Your task to perform on an android device: toggle location history Image 0: 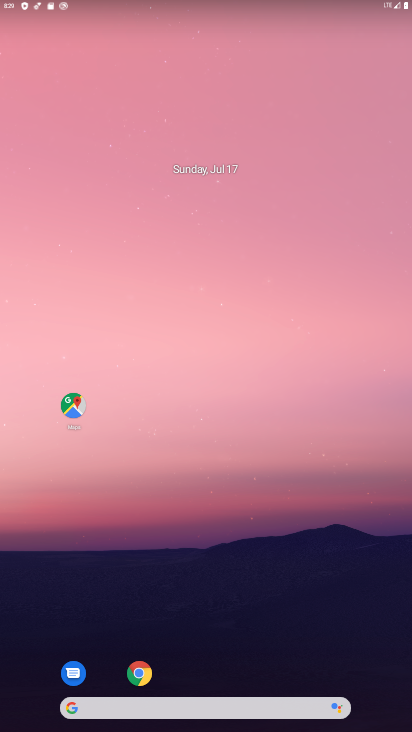
Step 0: drag from (309, 653) to (275, 57)
Your task to perform on an android device: toggle location history Image 1: 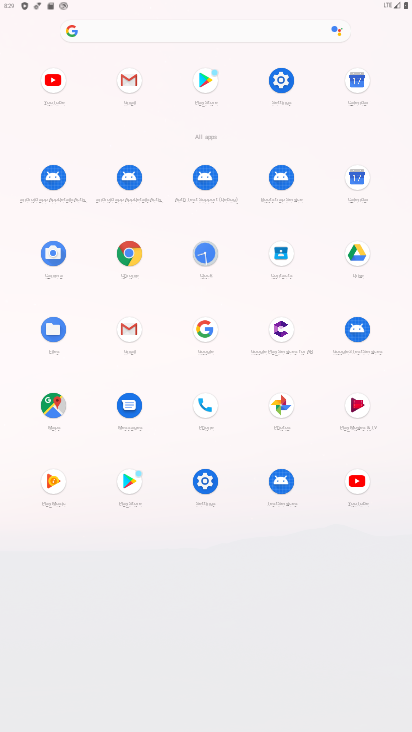
Step 1: click (202, 486)
Your task to perform on an android device: toggle location history Image 2: 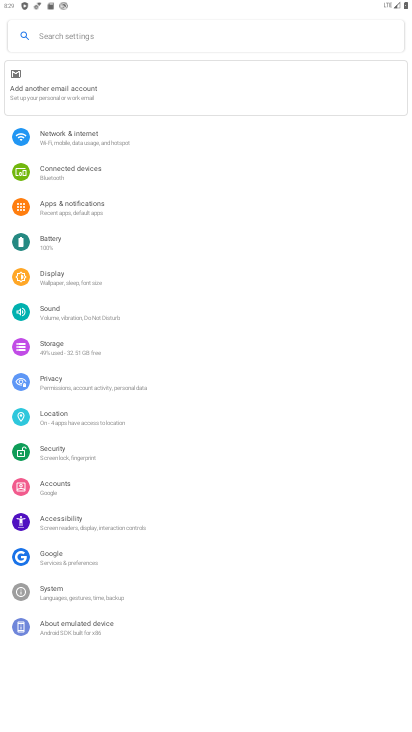
Step 2: click (78, 423)
Your task to perform on an android device: toggle location history Image 3: 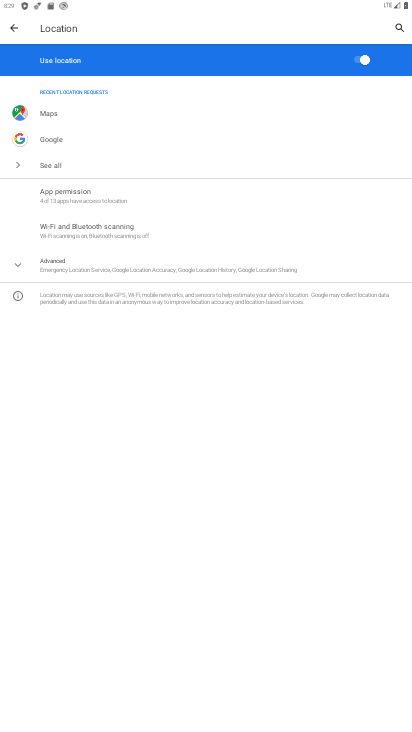
Step 3: click (15, 268)
Your task to perform on an android device: toggle location history Image 4: 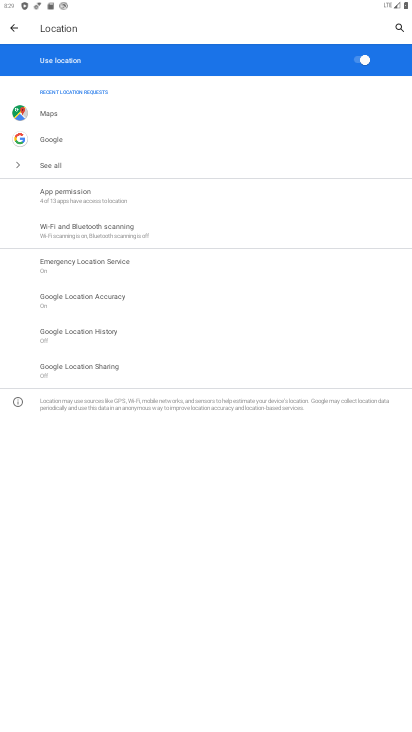
Step 4: click (90, 327)
Your task to perform on an android device: toggle location history Image 5: 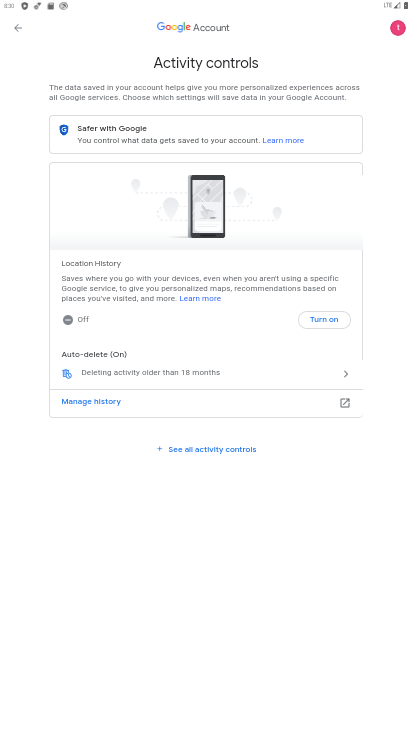
Step 5: click (313, 318)
Your task to perform on an android device: toggle location history Image 6: 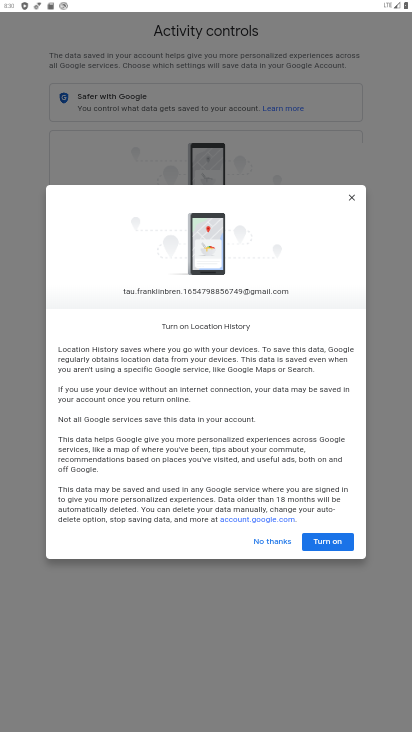
Step 6: click (344, 539)
Your task to perform on an android device: toggle location history Image 7: 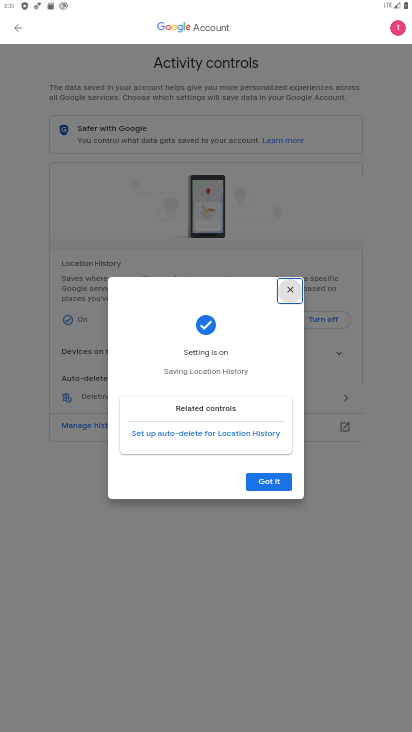
Step 7: click (288, 287)
Your task to perform on an android device: toggle location history Image 8: 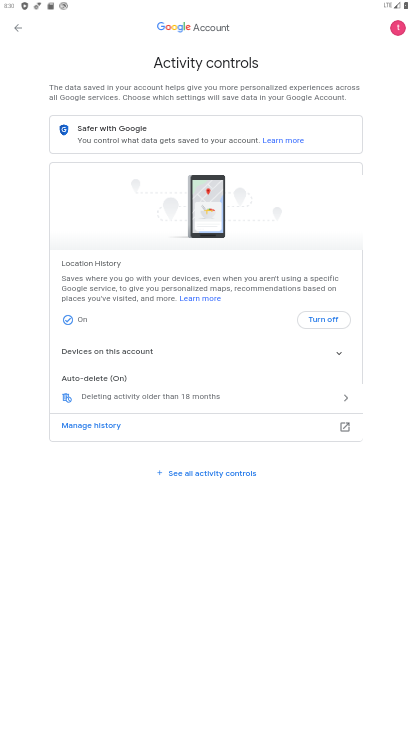
Step 8: task complete